Your task to perform on an android device: see creations saved in the google photos Image 0: 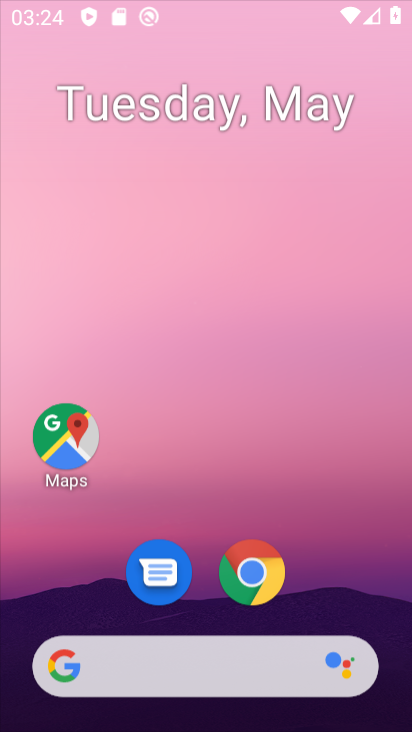
Step 0: click (248, 549)
Your task to perform on an android device: see creations saved in the google photos Image 1: 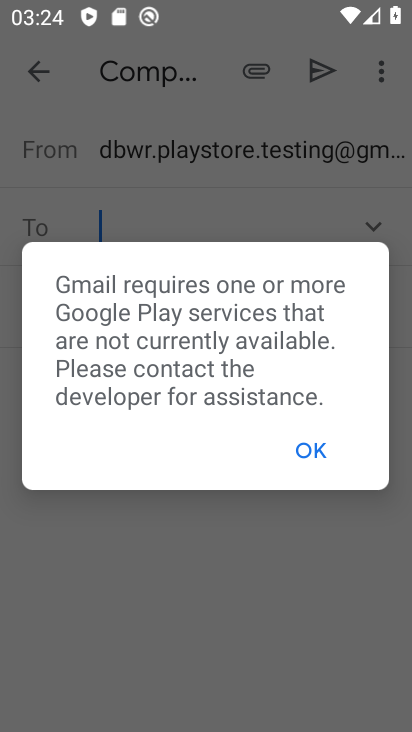
Step 1: press home button
Your task to perform on an android device: see creations saved in the google photos Image 2: 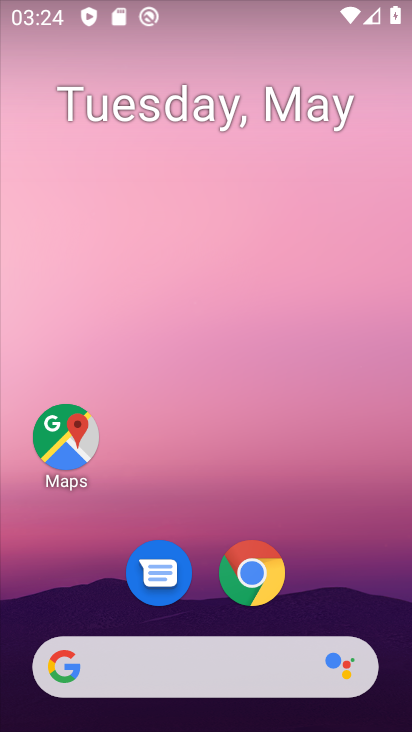
Step 2: drag from (203, 589) to (322, 23)
Your task to perform on an android device: see creations saved in the google photos Image 3: 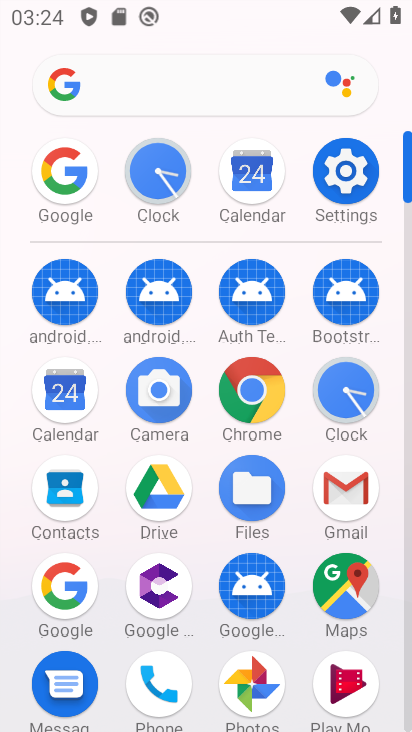
Step 3: click (232, 693)
Your task to perform on an android device: see creations saved in the google photos Image 4: 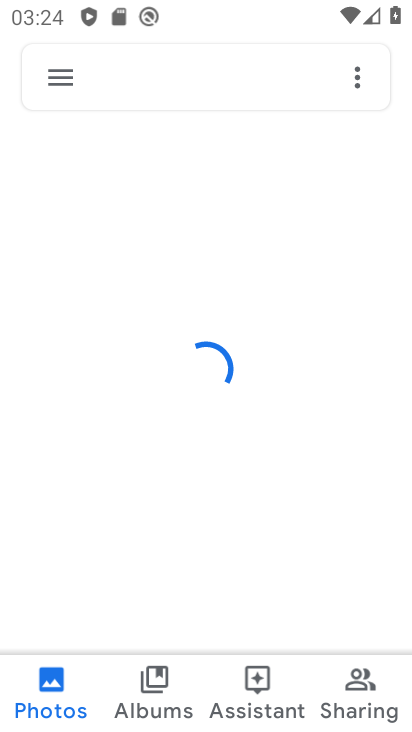
Step 4: click (62, 71)
Your task to perform on an android device: see creations saved in the google photos Image 5: 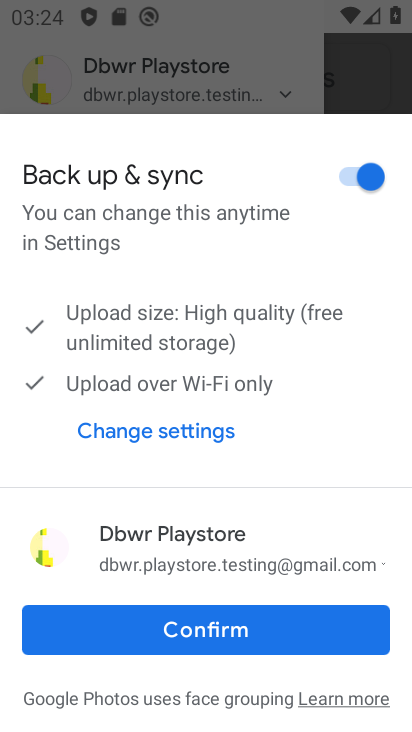
Step 5: click (160, 621)
Your task to perform on an android device: see creations saved in the google photos Image 6: 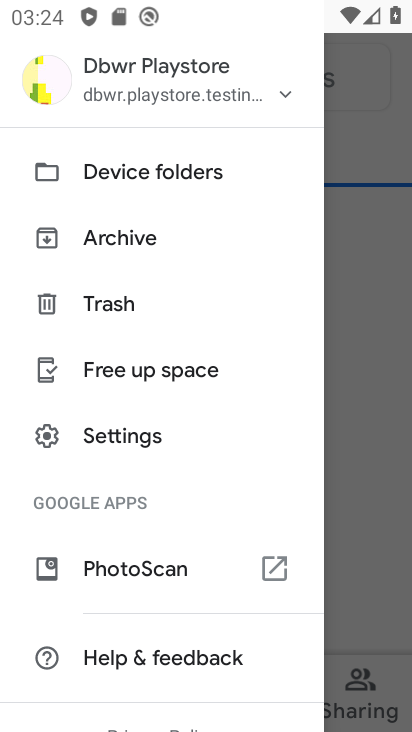
Step 6: click (349, 275)
Your task to perform on an android device: see creations saved in the google photos Image 7: 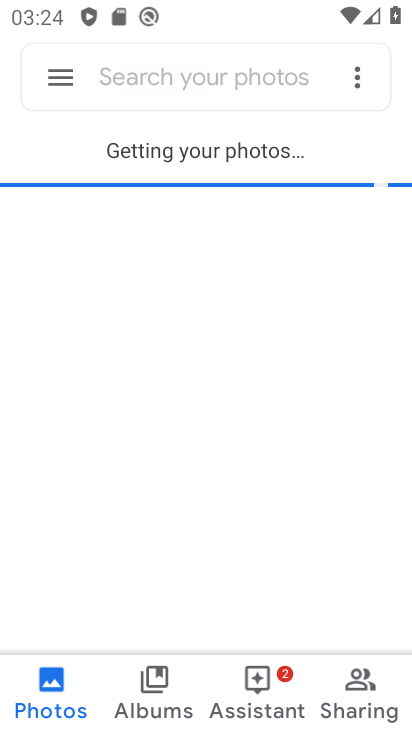
Step 7: click (37, 67)
Your task to perform on an android device: see creations saved in the google photos Image 8: 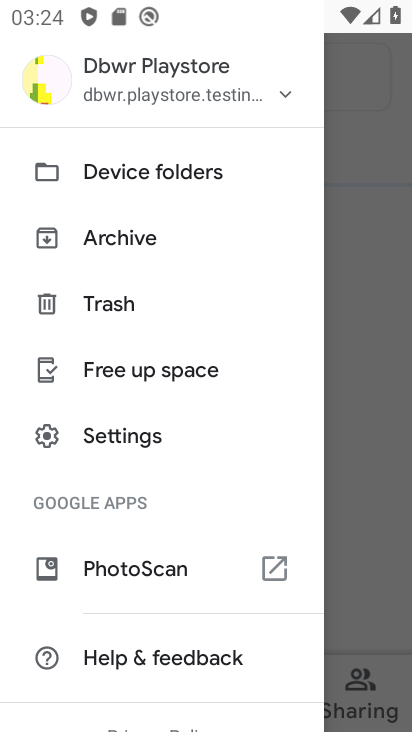
Step 8: click (134, 241)
Your task to perform on an android device: see creations saved in the google photos Image 9: 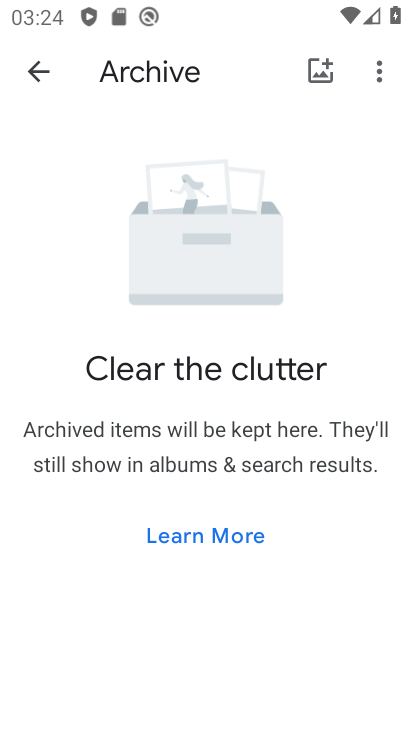
Step 9: task complete